Your task to perform on an android device: turn off location history Image 0: 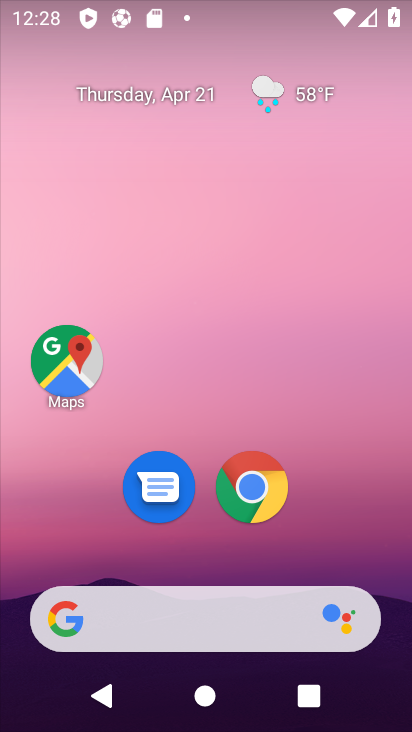
Step 0: click (53, 354)
Your task to perform on an android device: turn off location history Image 1: 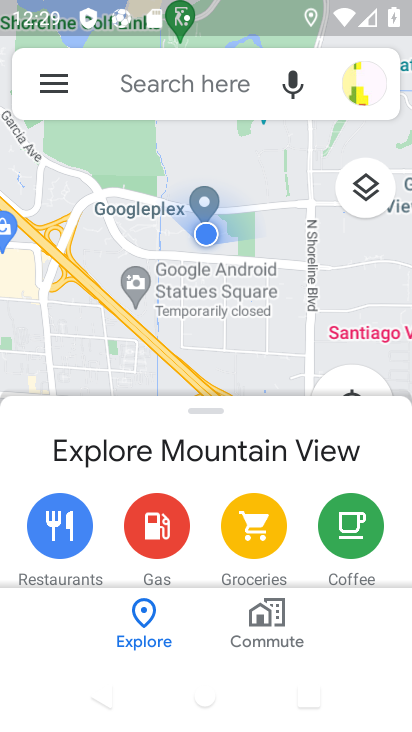
Step 1: click (46, 102)
Your task to perform on an android device: turn off location history Image 2: 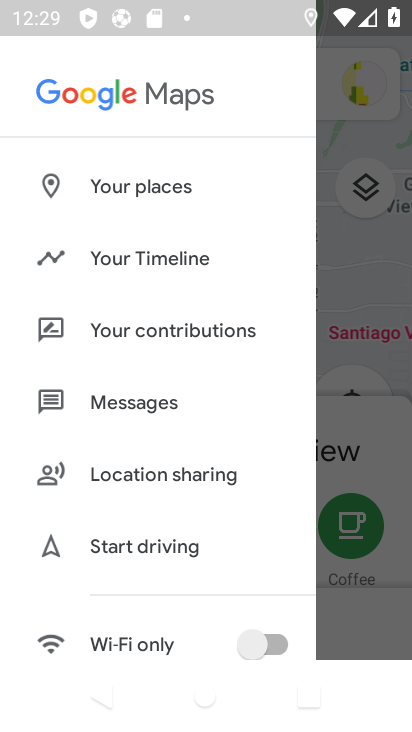
Step 2: click (138, 263)
Your task to perform on an android device: turn off location history Image 3: 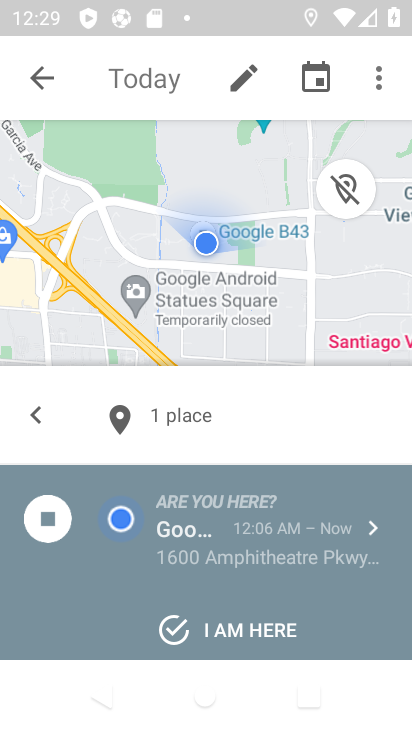
Step 3: click (379, 83)
Your task to perform on an android device: turn off location history Image 4: 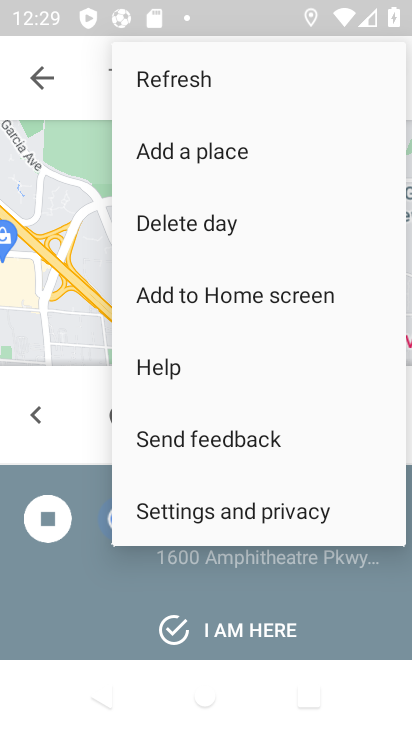
Step 4: click (226, 512)
Your task to perform on an android device: turn off location history Image 5: 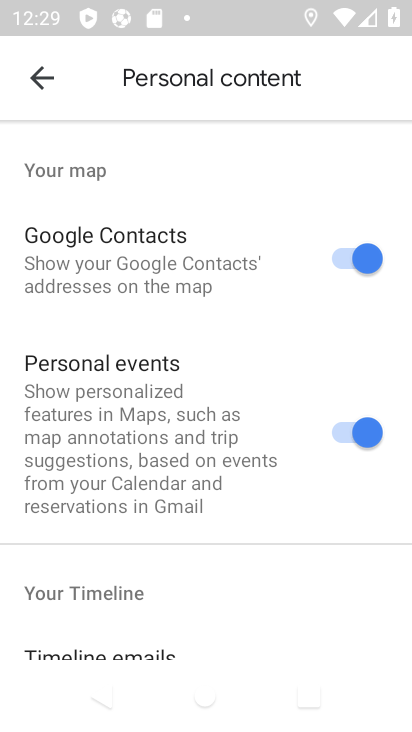
Step 5: drag from (199, 552) to (204, 184)
Your task to perform on an android device: turn off location history Image 6: 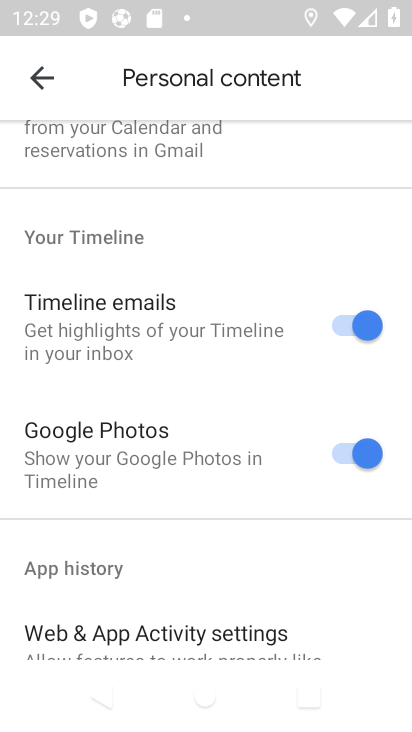
Step 6: drag from (161, 556) to (142, 122)
Your task to perform on an android device: turn off location history Image 7: 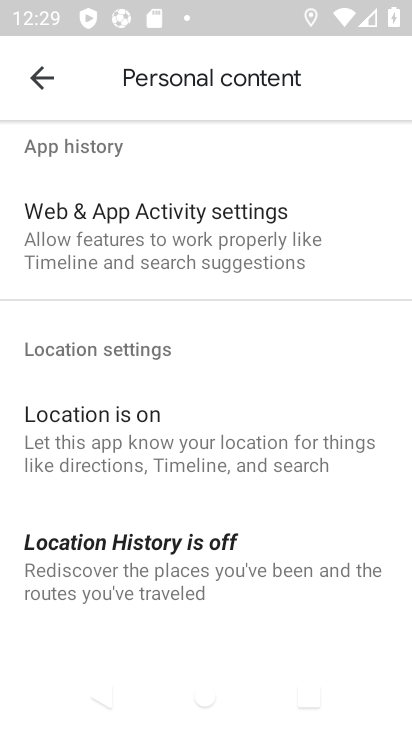
Step 7: drag from (192, 533) to (173, 205)
Your task to perform on an android device: turn off location history Image 8: 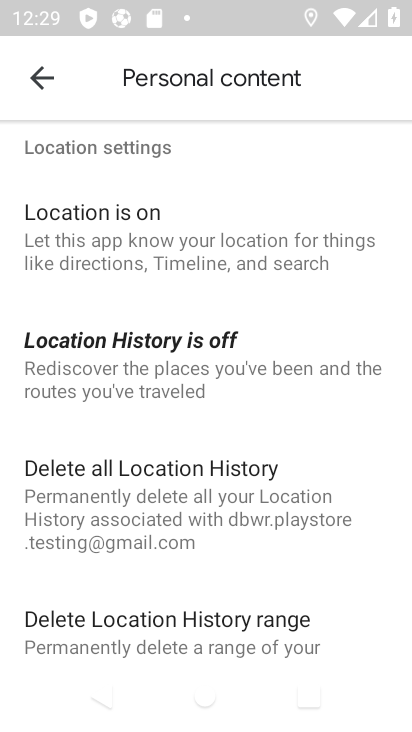
Step 8: click (136, 360)
Your task to perform on an android device: turn off location history Image 9: 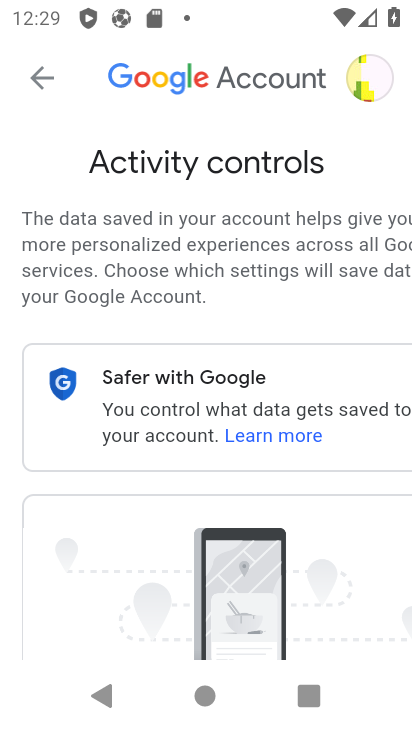
Step 9: task complete